Your task to perform on an android device: toggle sleep mode Image 0: 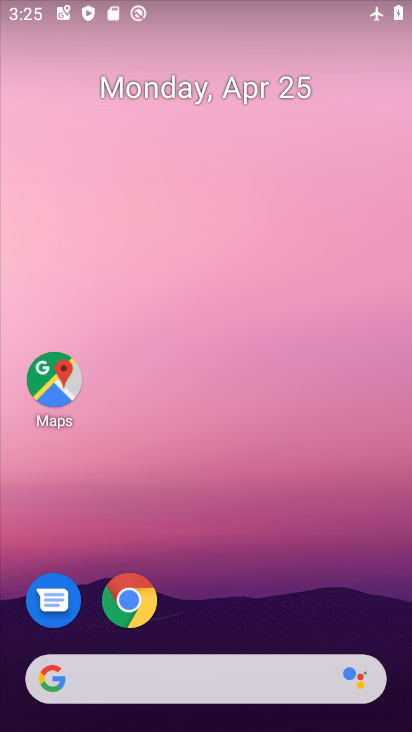
Step 0: drag from (326, 520) to (349, 91)
Your task to perform on an android device: toggle sleep mode Image 1: 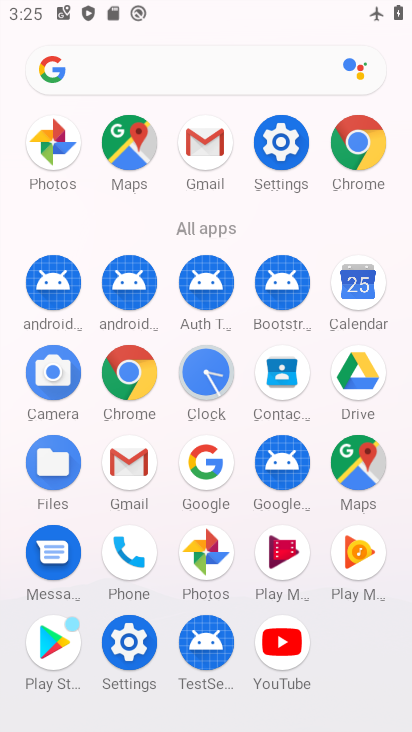
Step 1: click (305, 146)
Your task to perform on an android device: toggle sleep mode Image 2: 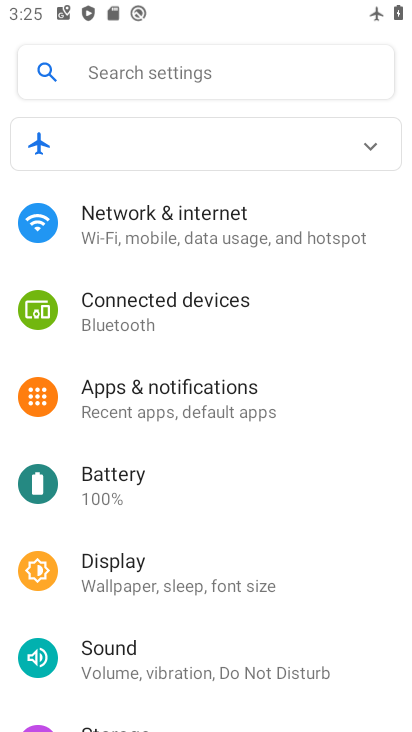
Step 2: drag from (216, 476) to (264, 179)
Your task to perform on an android device: toggle sleep mode Image 3: 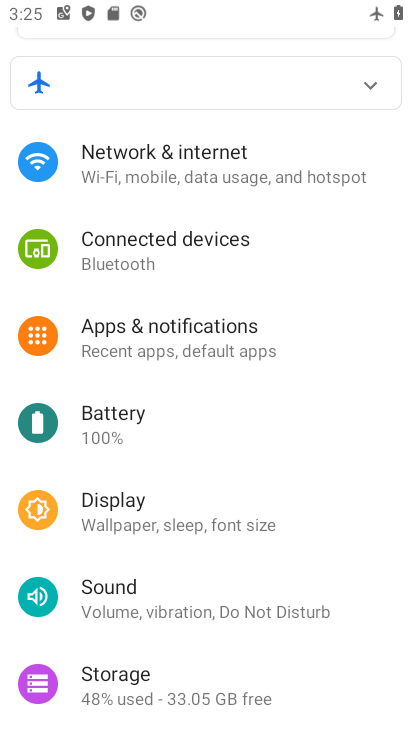
Step 3: click (126, 509)
Your task to perform on an android device: toggle sleep mode Image 4: 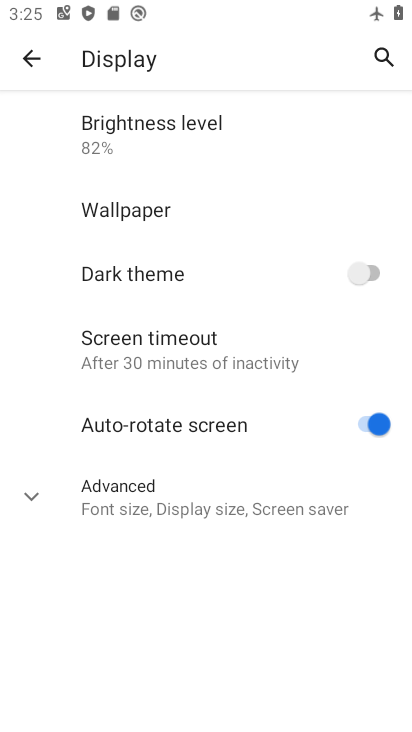
Step 4: click (151, 352)
Your task to perform on an android device: toggle sleep mode Image 5: 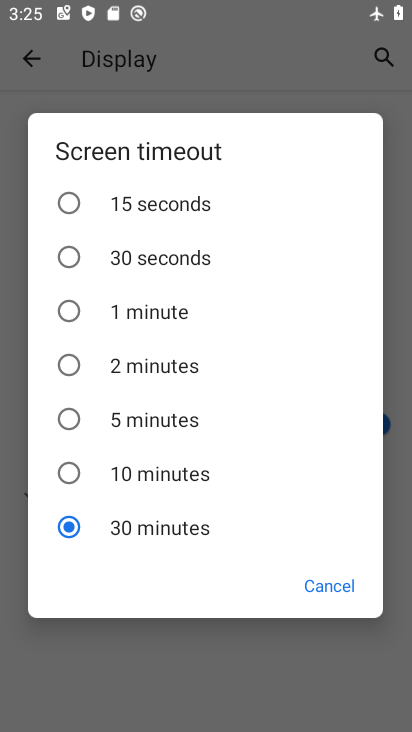
Step 5: click (73, 366)
Your task to perform on an android device: toggle sleep mode Image 6: 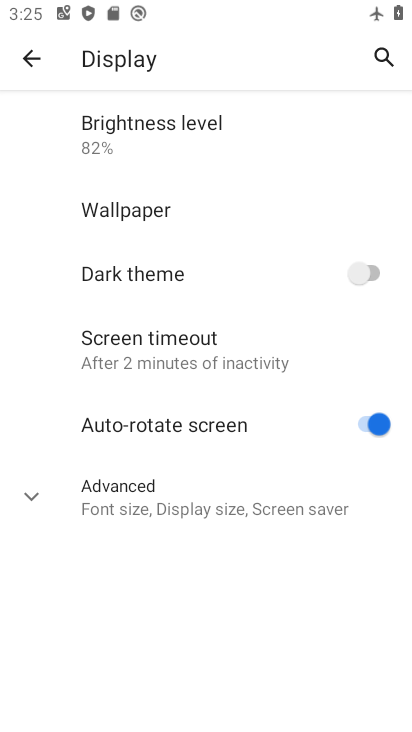
Step 6: task complete